Your task to perform on an android device: What's the latest video from Game Informer? Image 0: 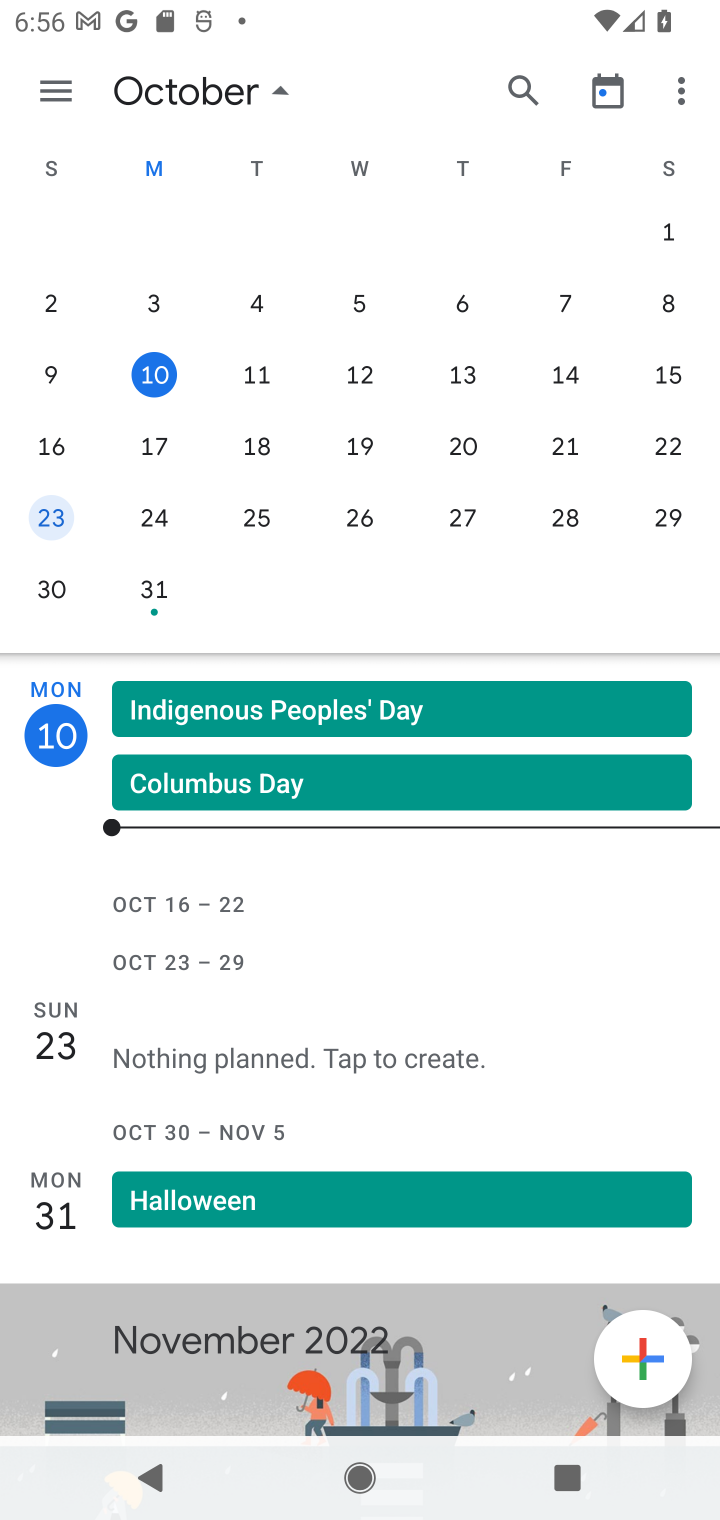
Step 0: press home button
Your task to perform on an android device: What's the latest video from Game Informer? Image 1: 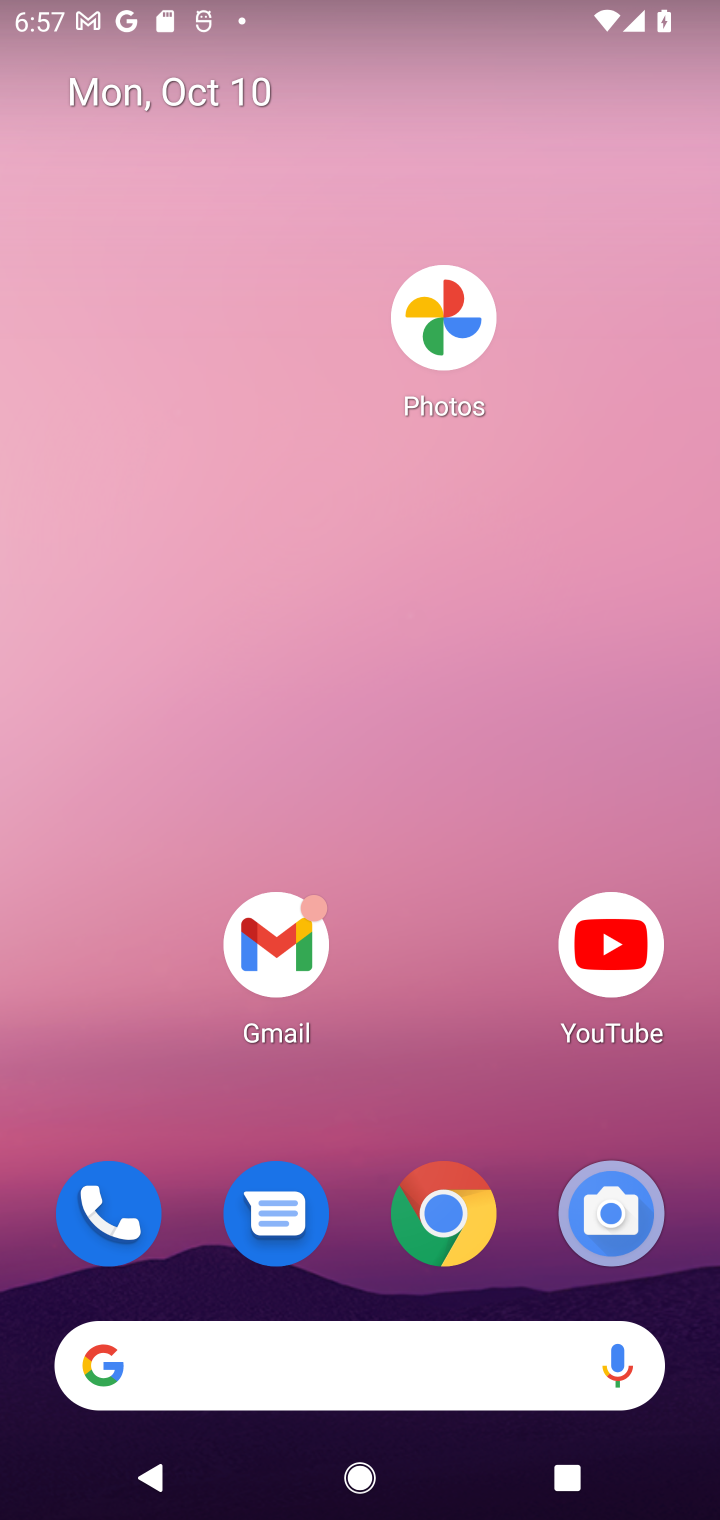
Step 1: click (594, 1007)
Your task to perform on an android device: What's the latest video from Game Informer? Image 2: 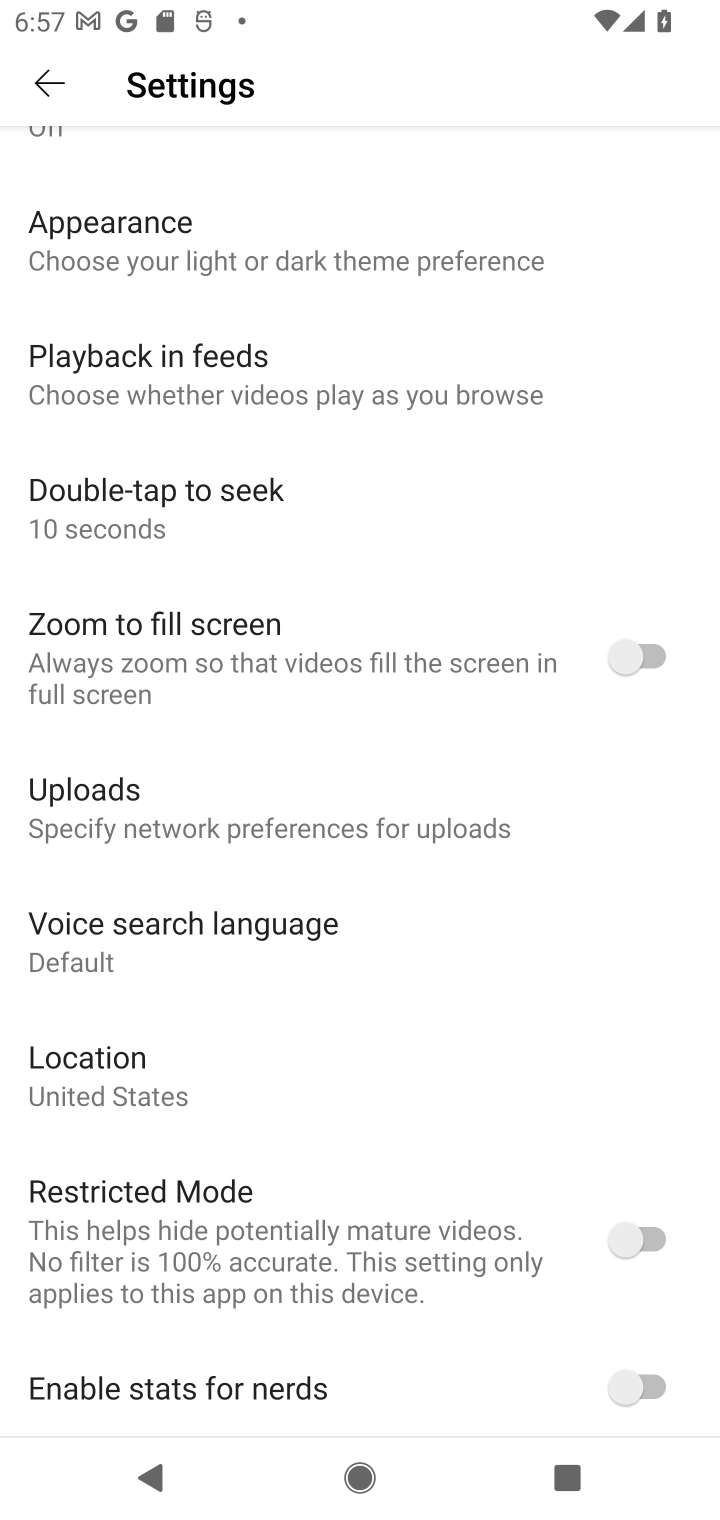
Step 2: click (37, 83)
Your task to perform on an android device: What's the latest video from Game Informer? Image 3: 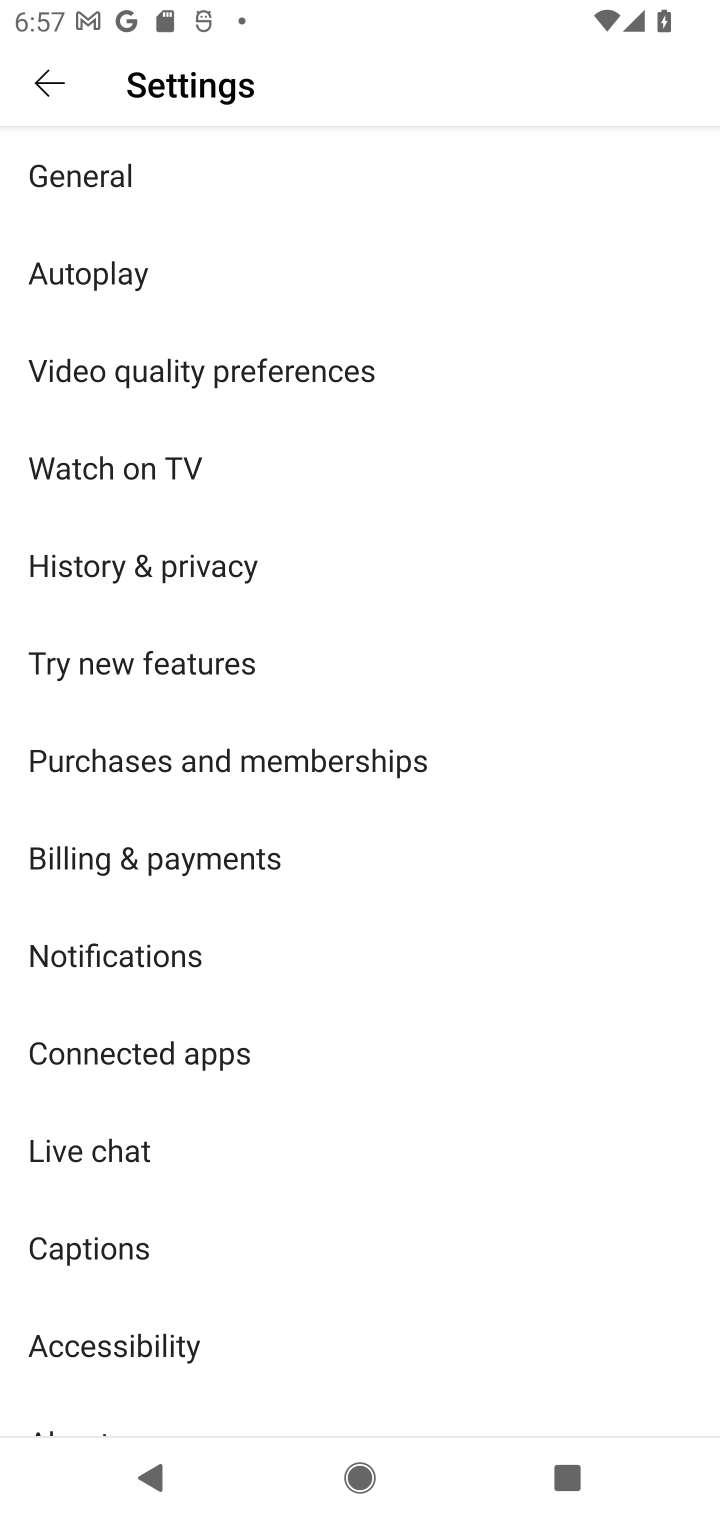
Step 3: click (39, 78)
Your task to perform on an android device: What's the latest video from Game Informer? Image 4: 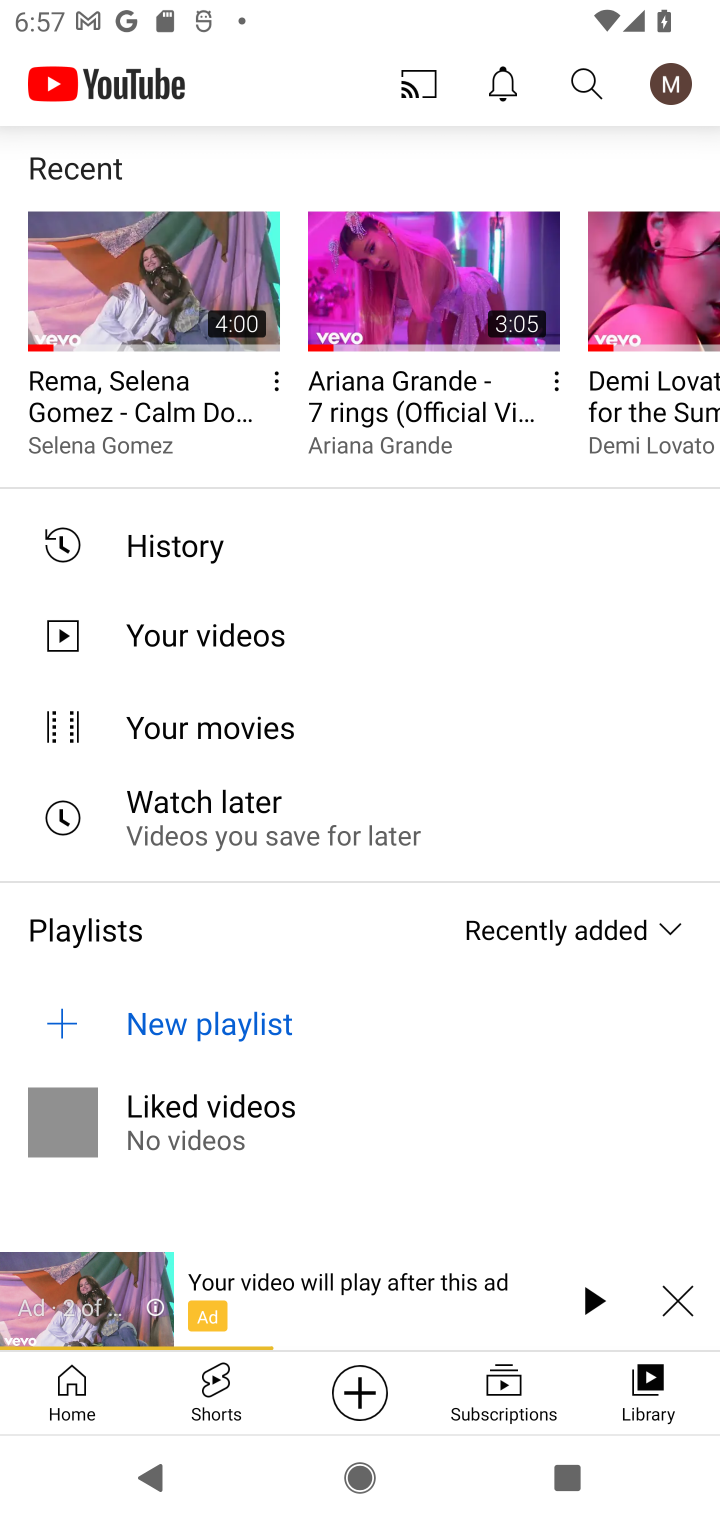
Step 4: click (579, 84)
Your task to perform on an android device: What's the latest video from Game Informer? Image 5: 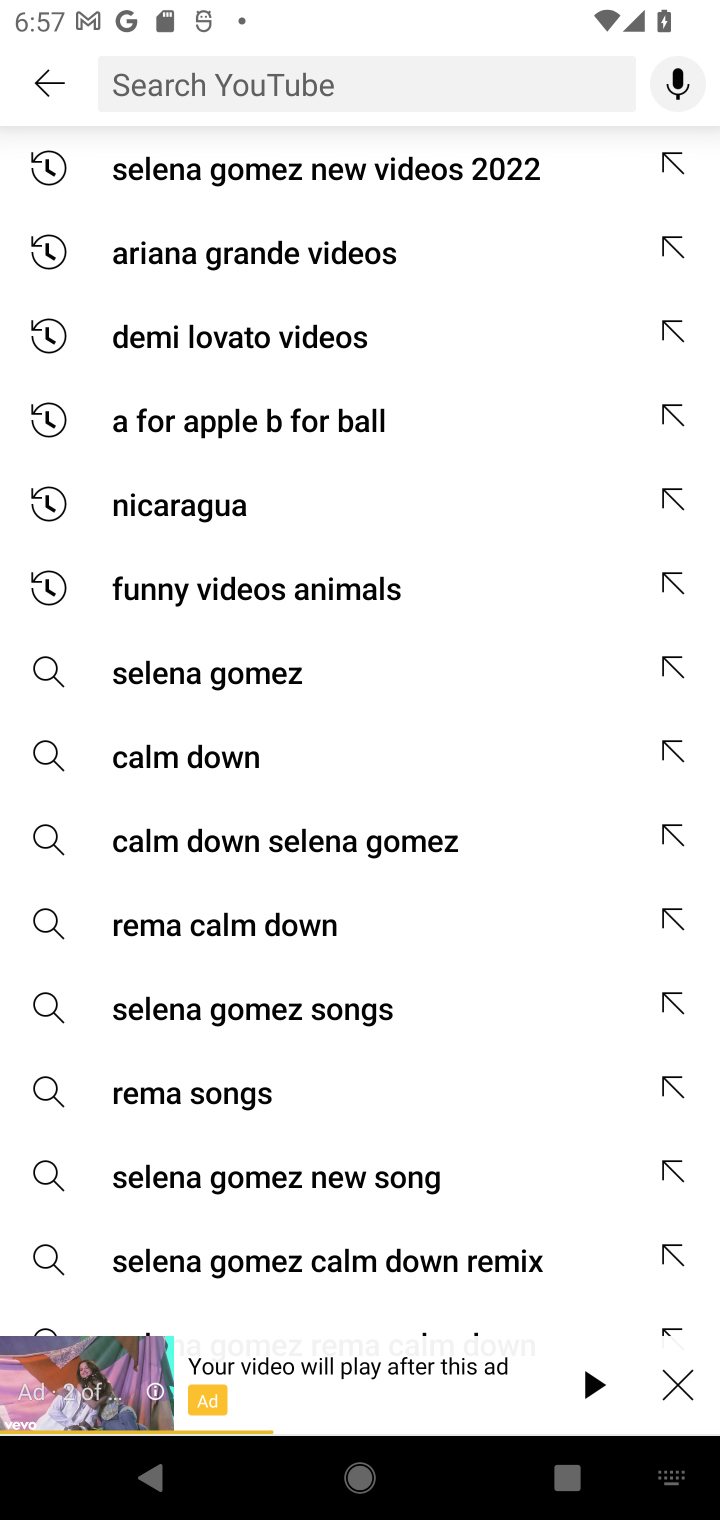
Step 5: type "Game Informer"
Your task to perform on an android device: What's the latest video from Game Informer? Image 6: 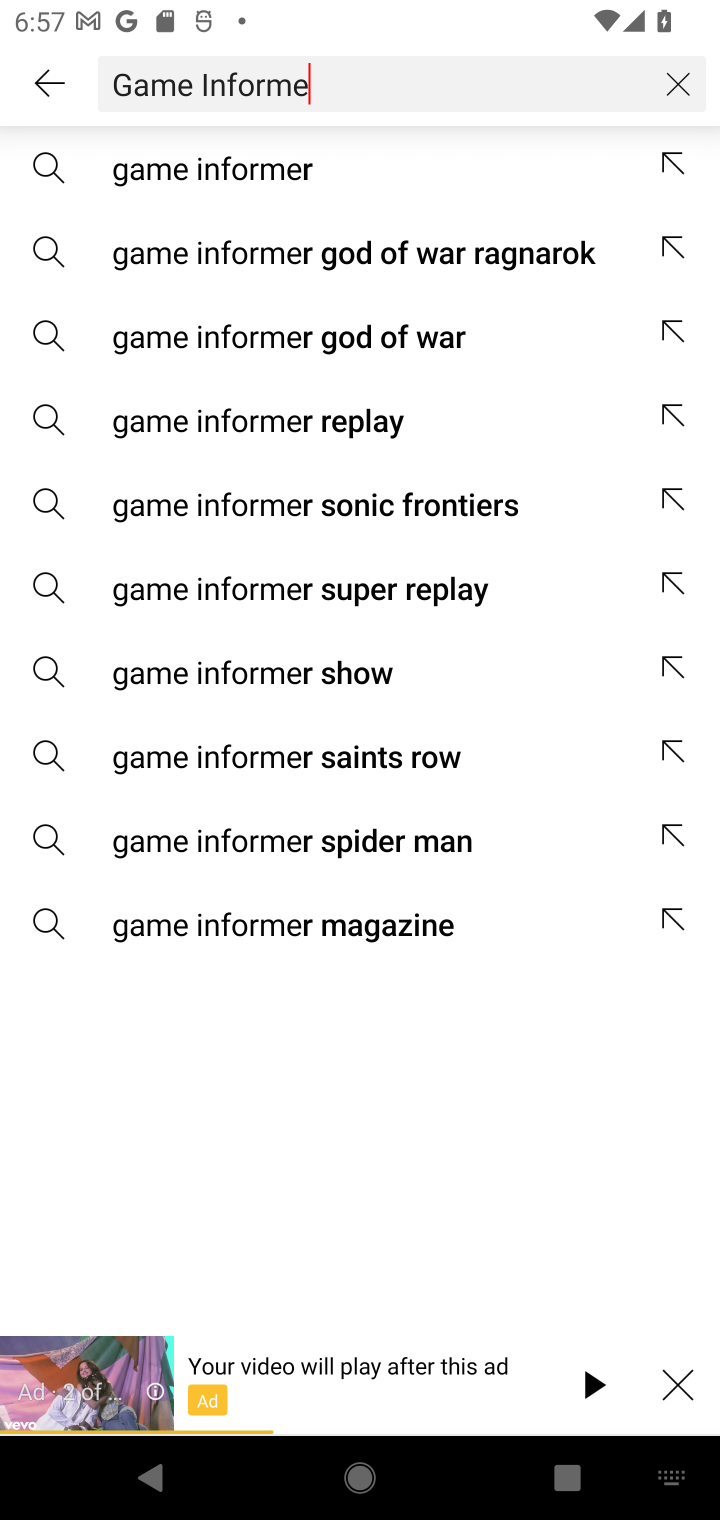
Step 6: type ""
Your task to perform on an android device: What's the latest video from Game Informer? Image 7: 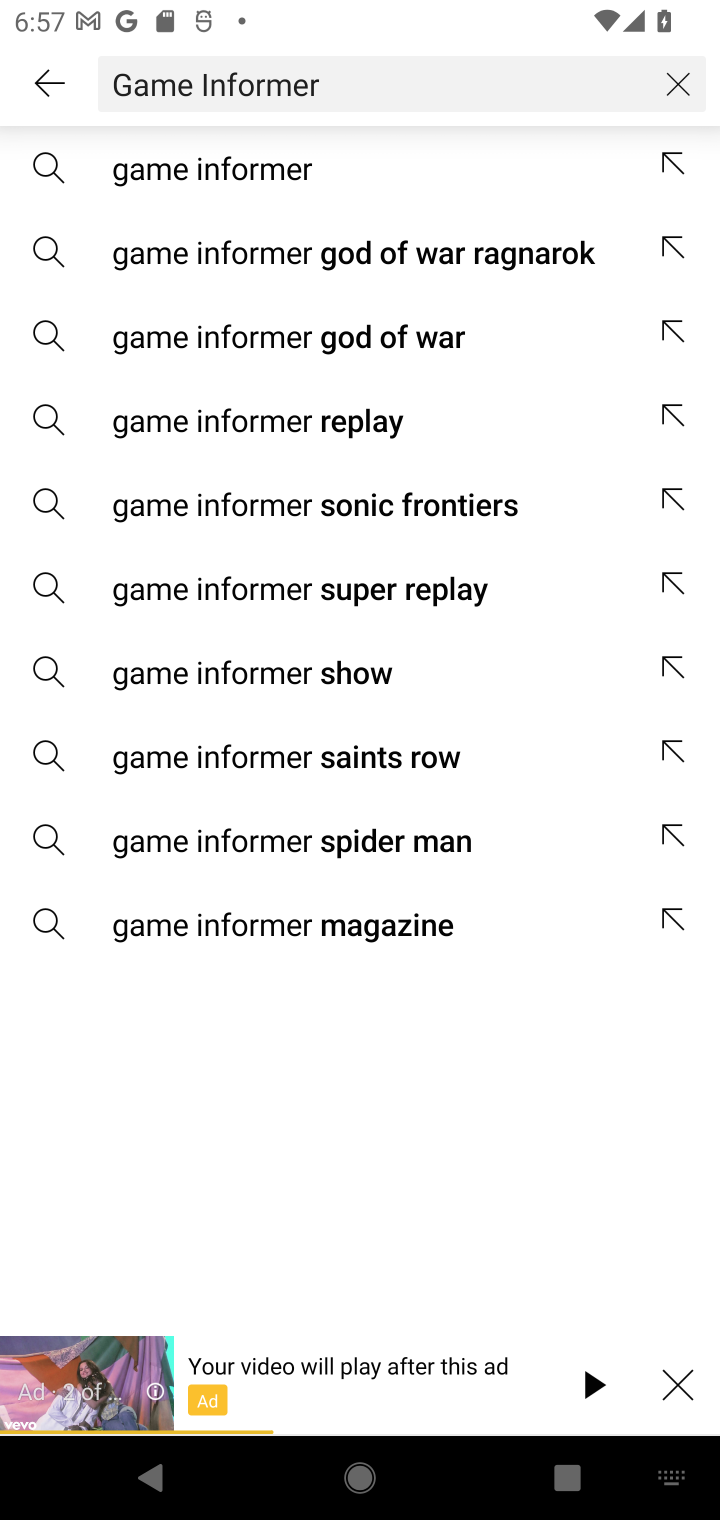
Step 7: click (259, 186)
Your task to perform on an android device: What's the latest video from Game Informer? Image 8: 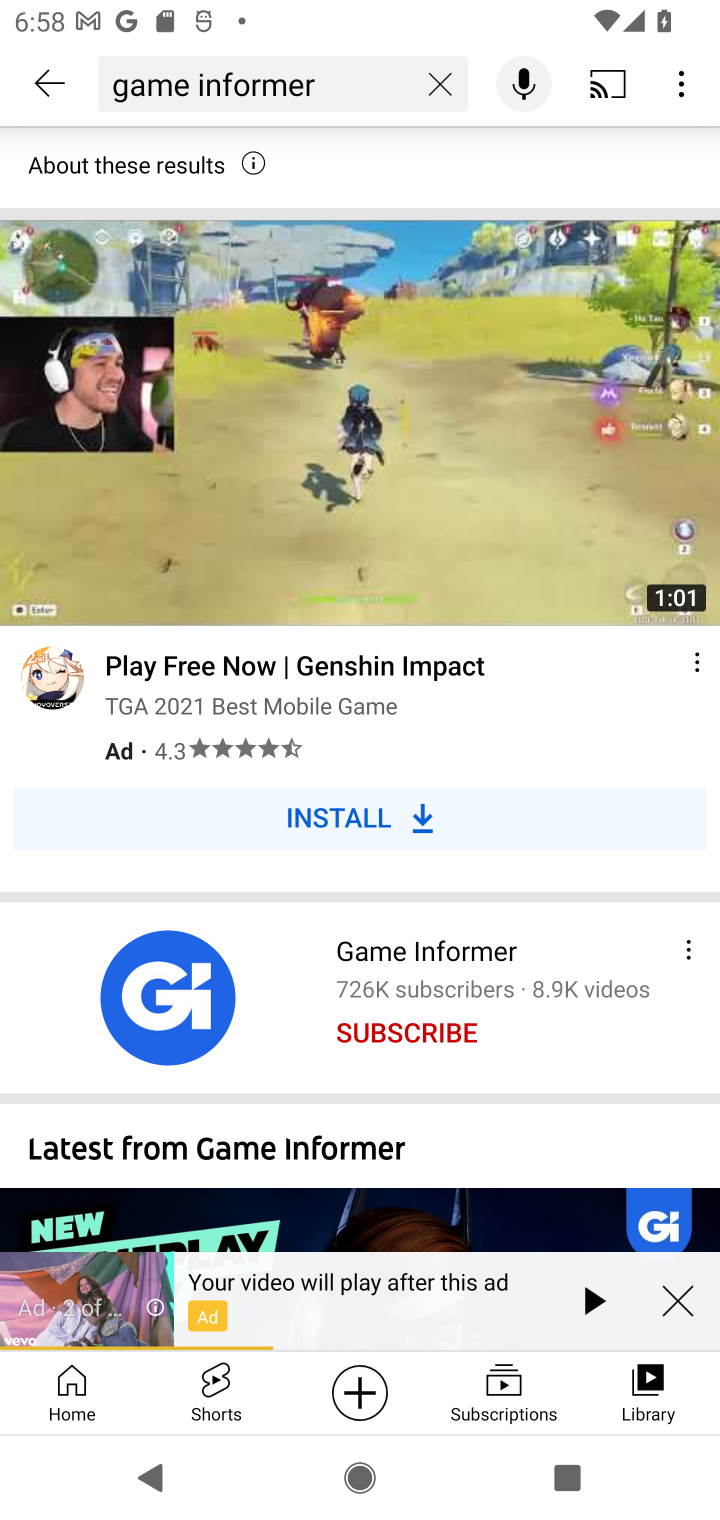
Step 8: drag from (585, 1087) to (547, 460)
Your task to perform on an android device: What's the latest video from Game Informer? Image 9: 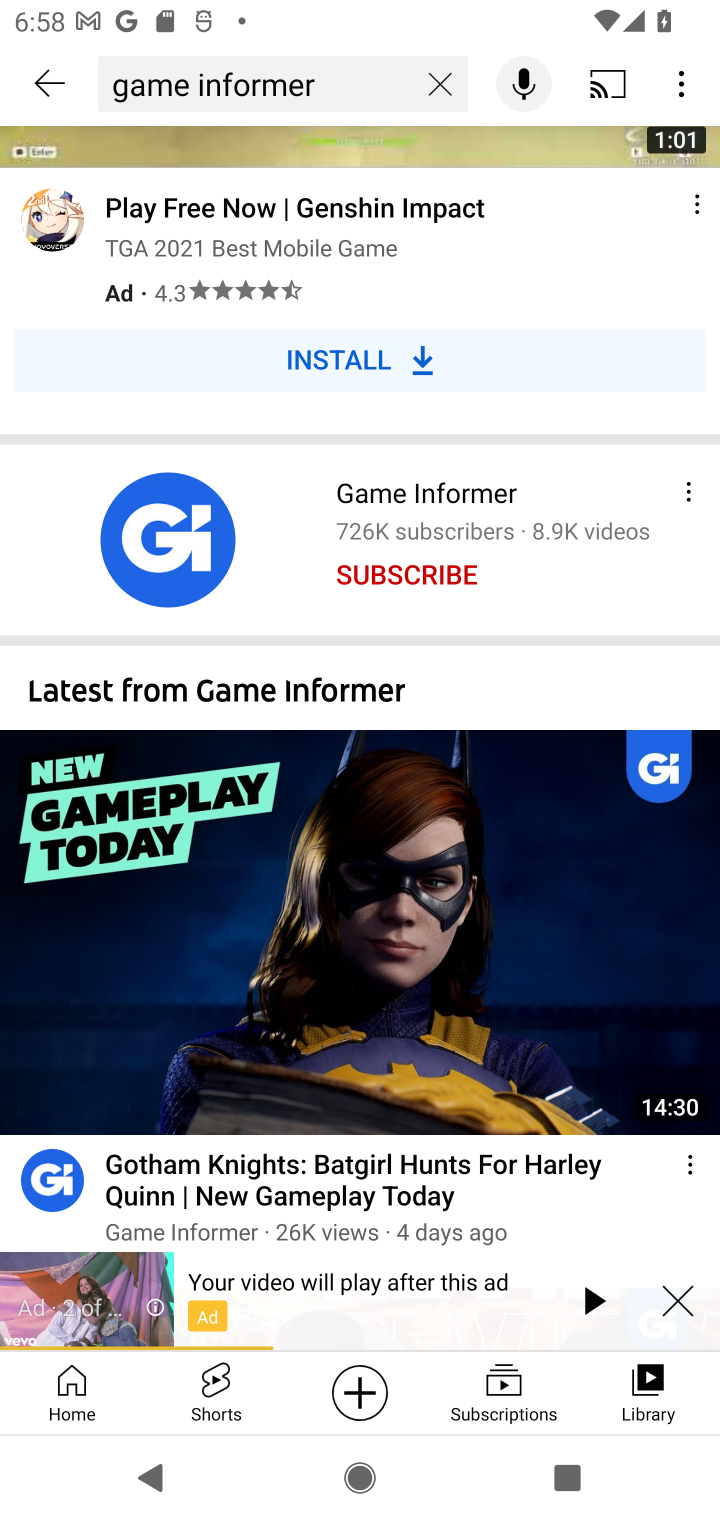
Step 9: drag from (465, 864) to (500, 447)
Your task to perform on an android device: What's the latest video from Game Informer? Image 10: 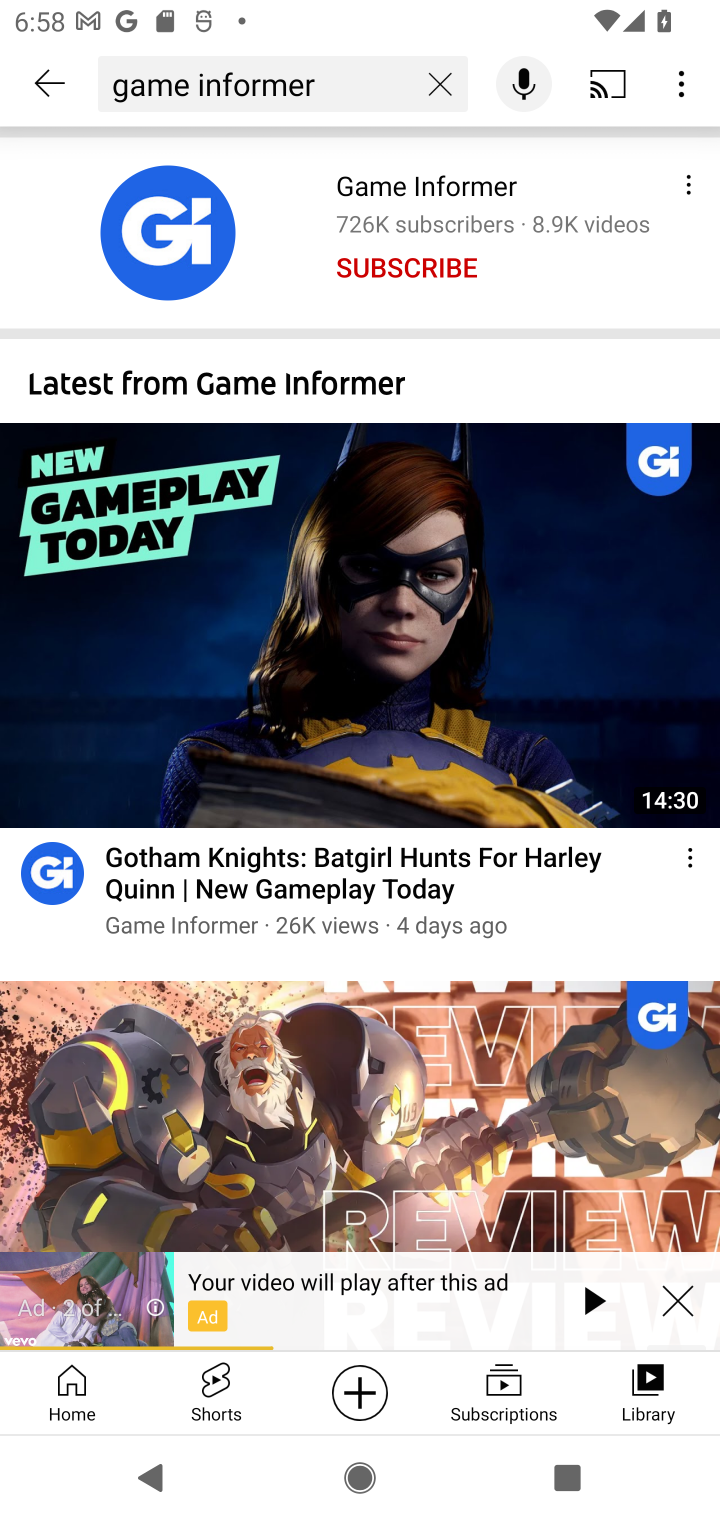
Step 10: click (284, 676)
Your task to perform on an android device: What's the latest video from Game Informer? Image 11: 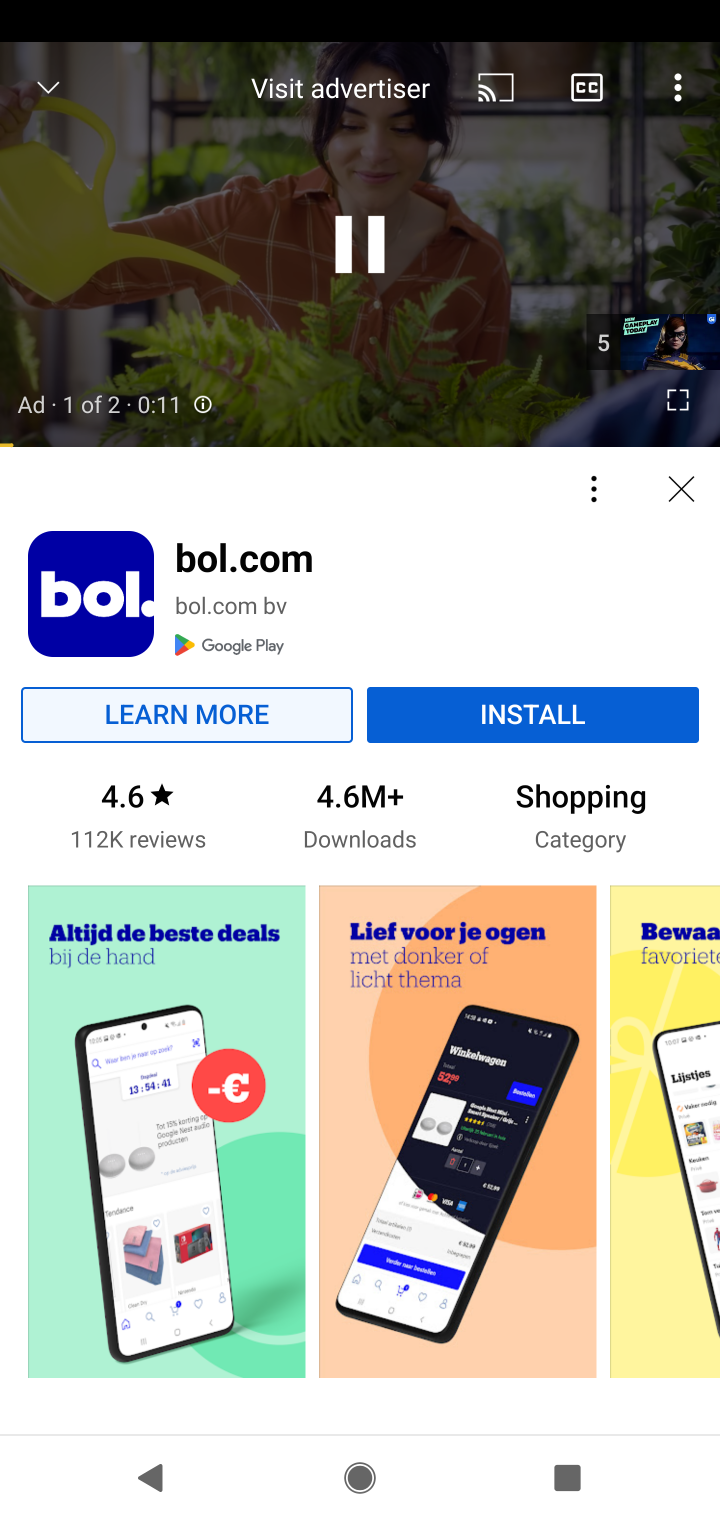
Step 11: click (366, 237)
Your task to perform on an android device: What's the latest video from Game Informer? Image 12: 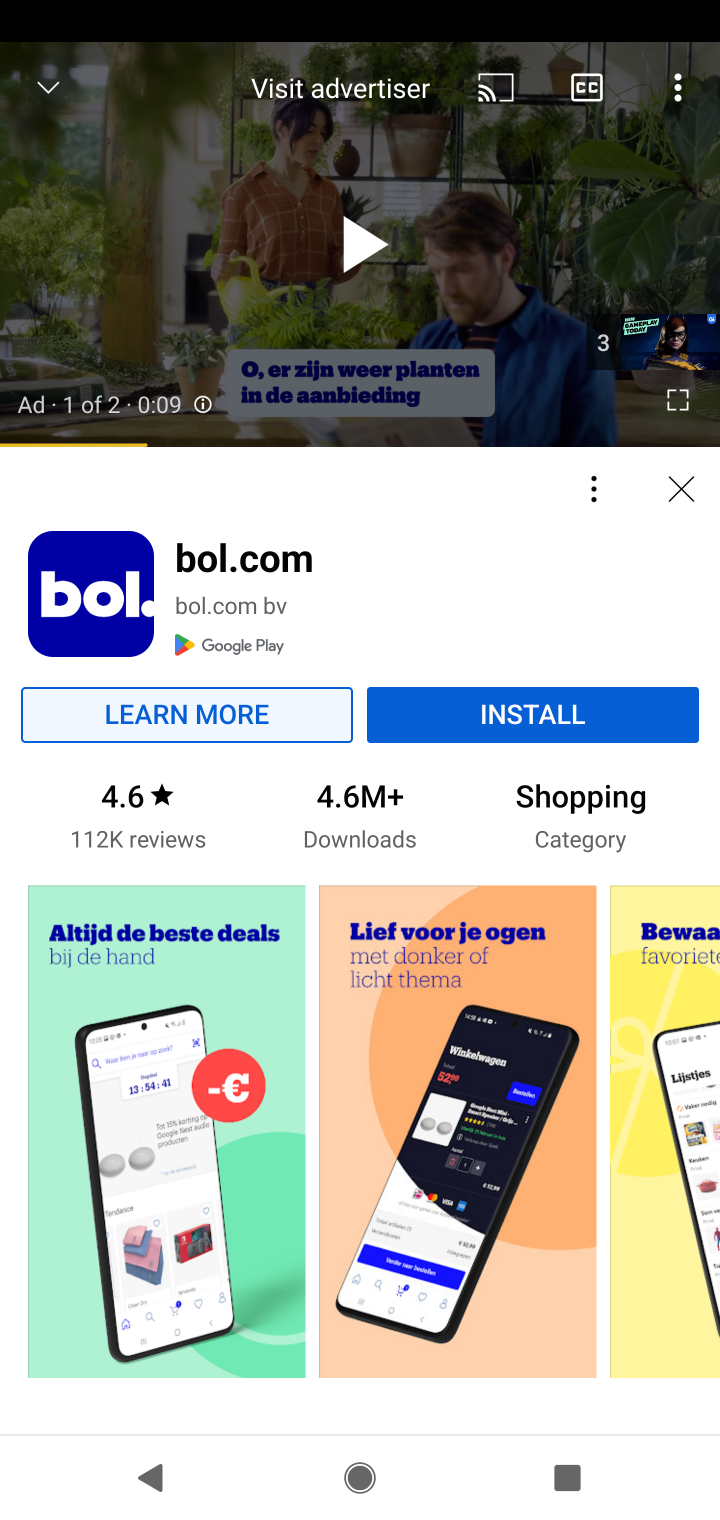
Step 12: click (680, 477)
Your task to perform on an android device: What's the latest video from Game Informer? Image 13: 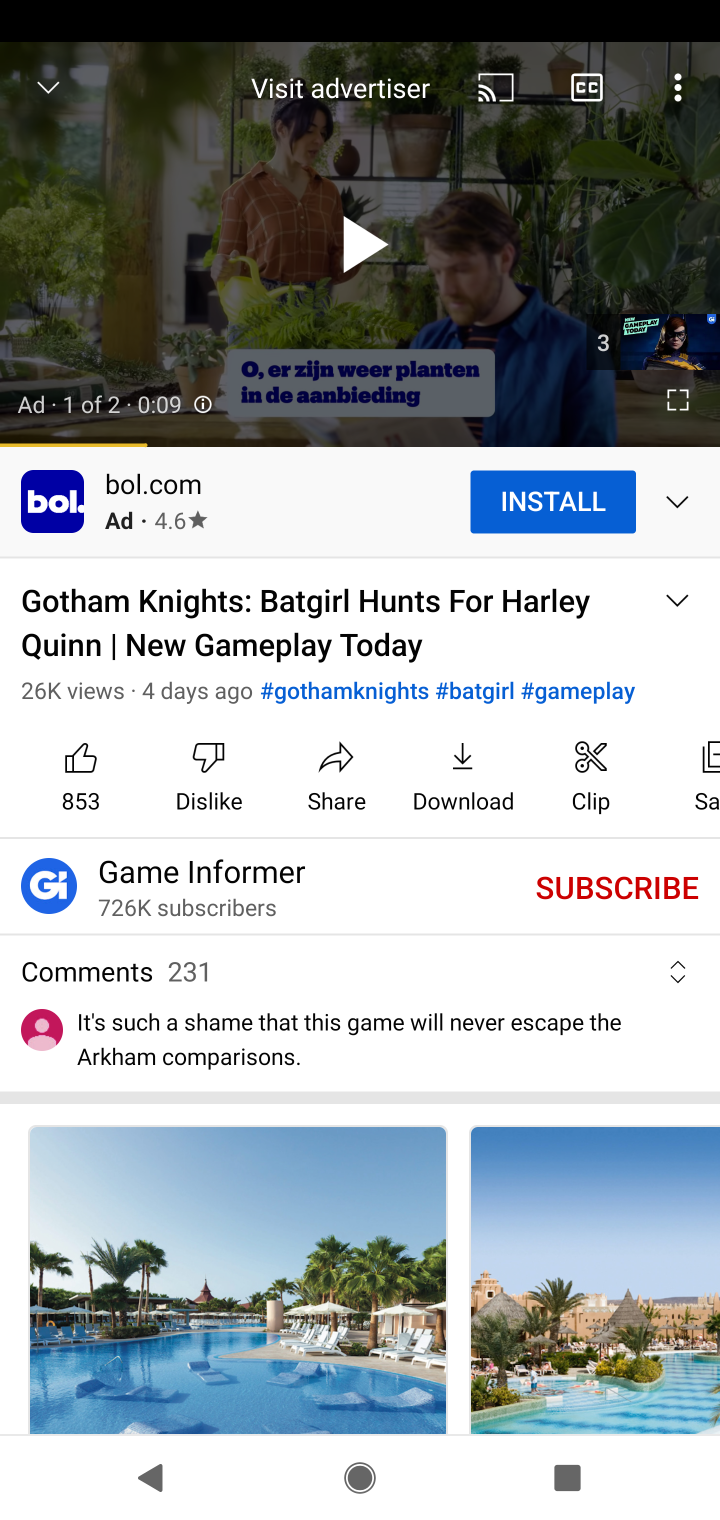
Step 13: task complete